Your task to perform on an android device: What's the weather? Image 0: 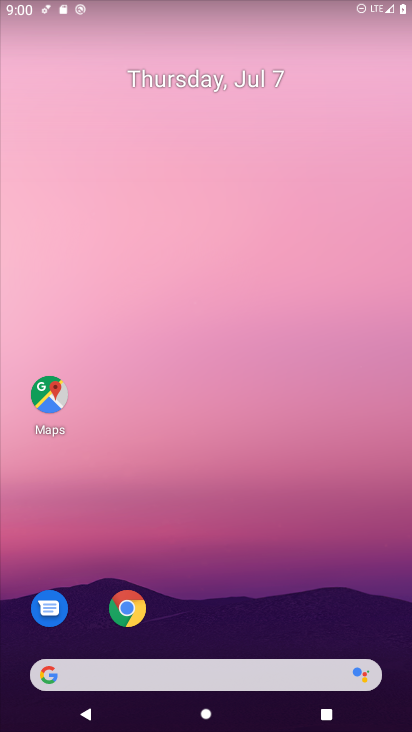
Step 0: drag from (8, 244) to (402, 269)
Your task to perform on an android device: What's the weather? Image 1: 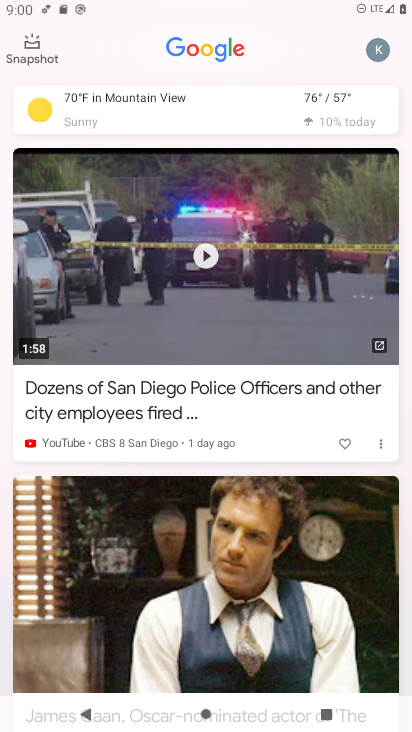
Step 1: click (82, 102)
Your task to perform on an android device: What's the weather? Image 2: 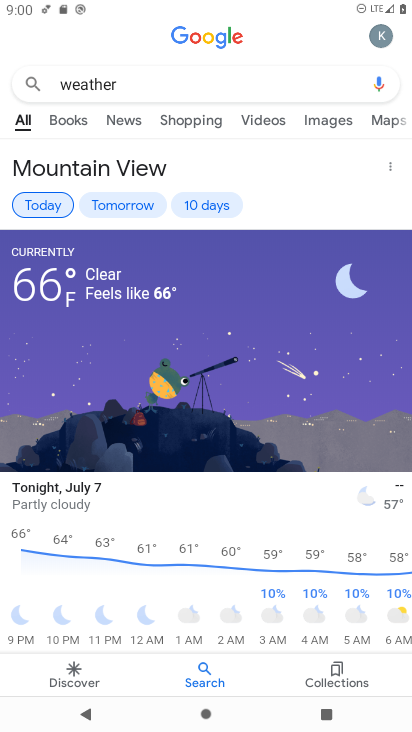
Step 2: task complete